Your task to perform on an android device: Open notification settings Image 0: 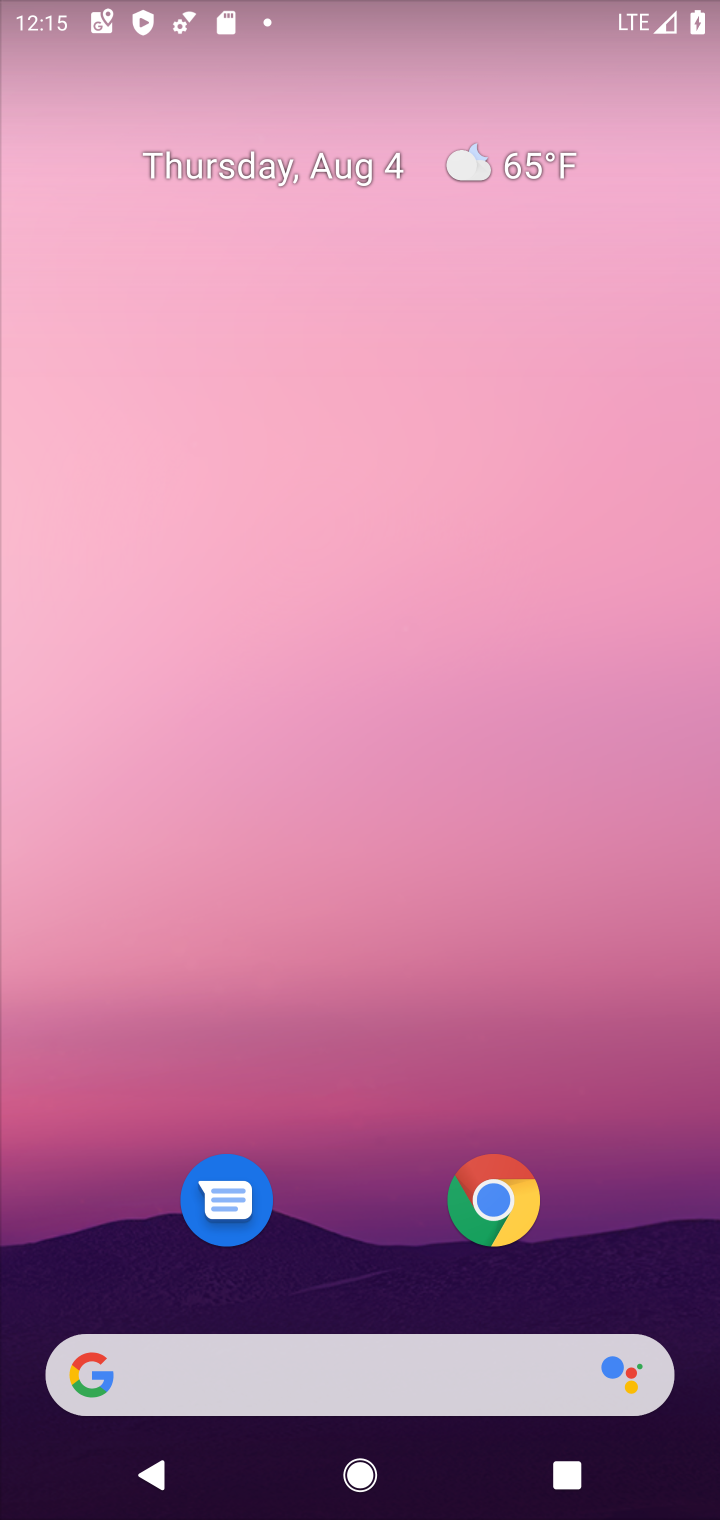
Step 0: drag from (354, 1278) to (414, 151)
Your task to perform on an android device: Open notification settings Image 1: 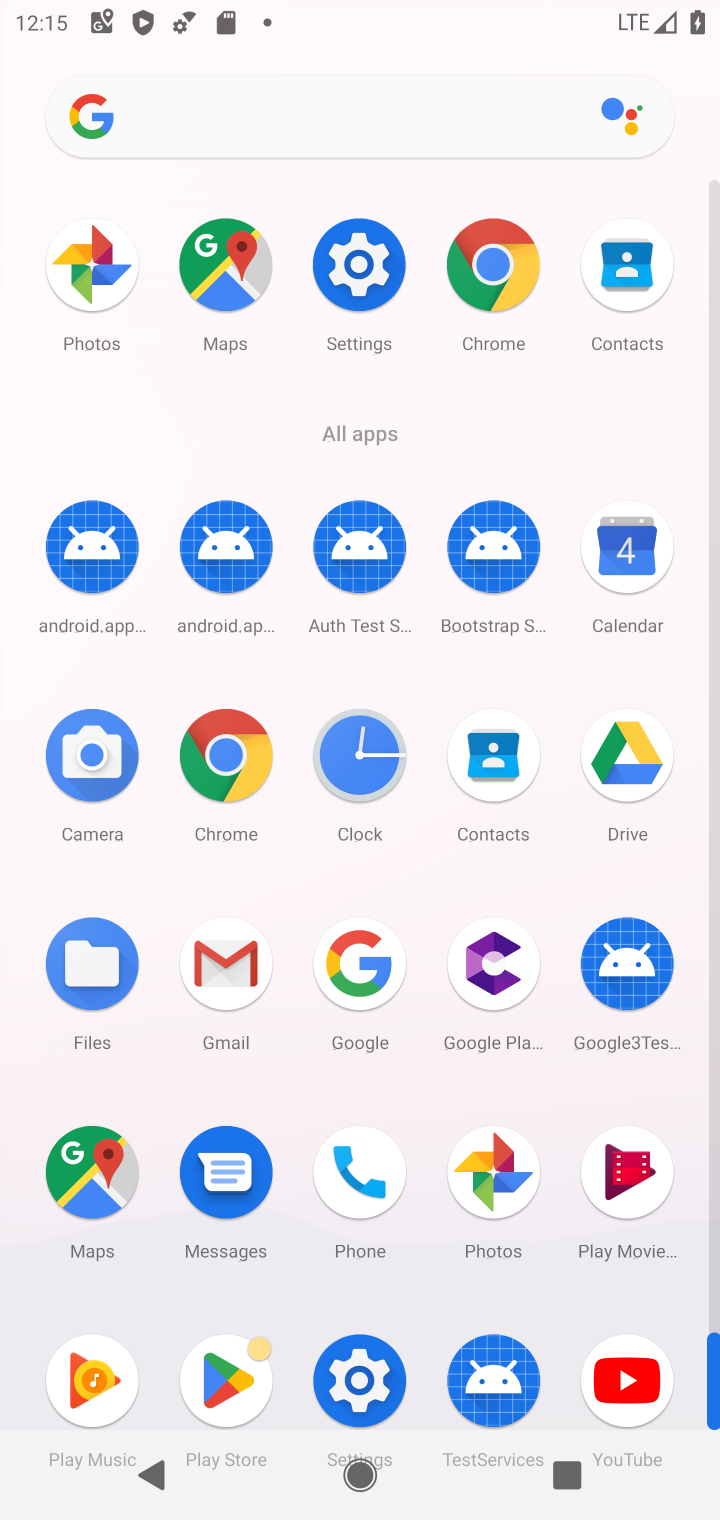
Step 1: click (341, 1386)
Your task to perform on an android device: Open notification settings Image 2: 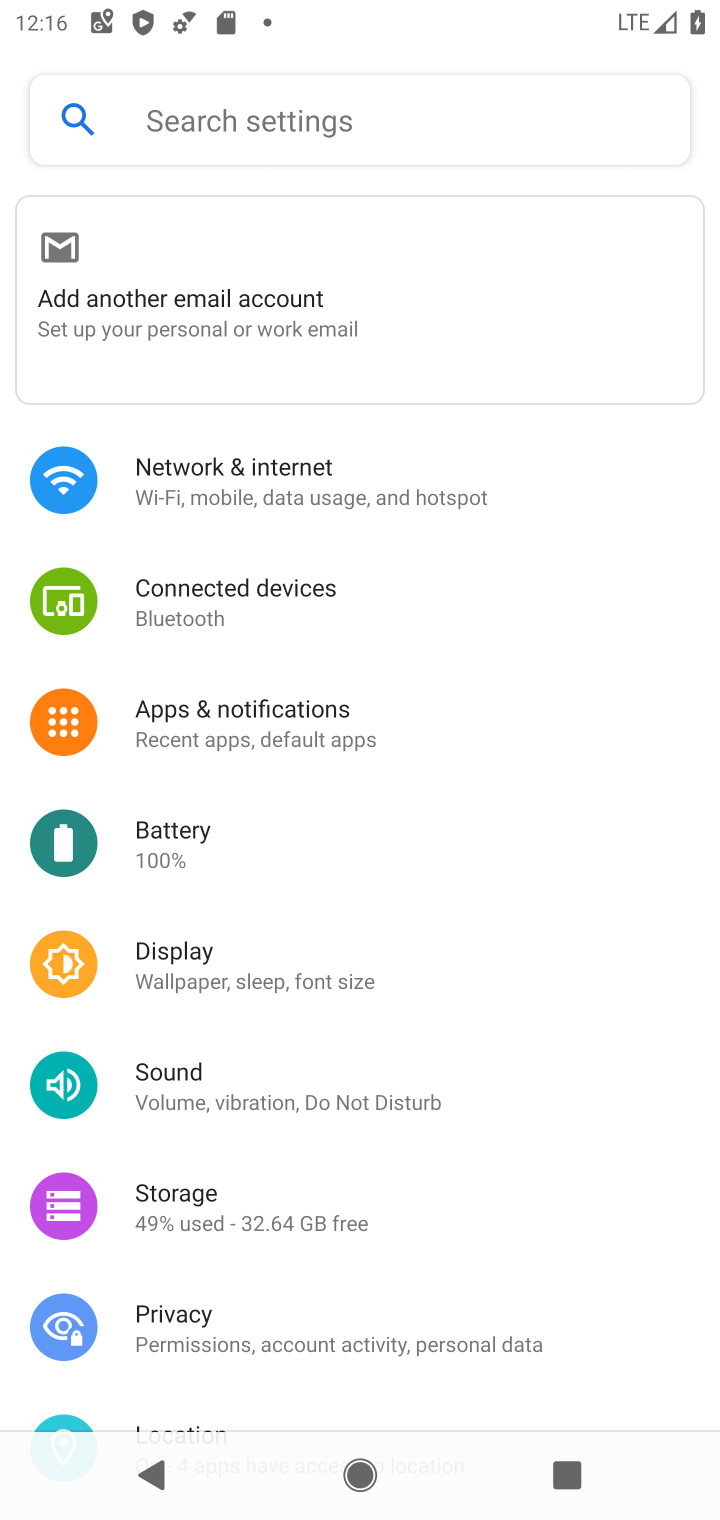
Step 2: click (406, 730)
Your task to perform on an android device: Open notification settings Image 3: 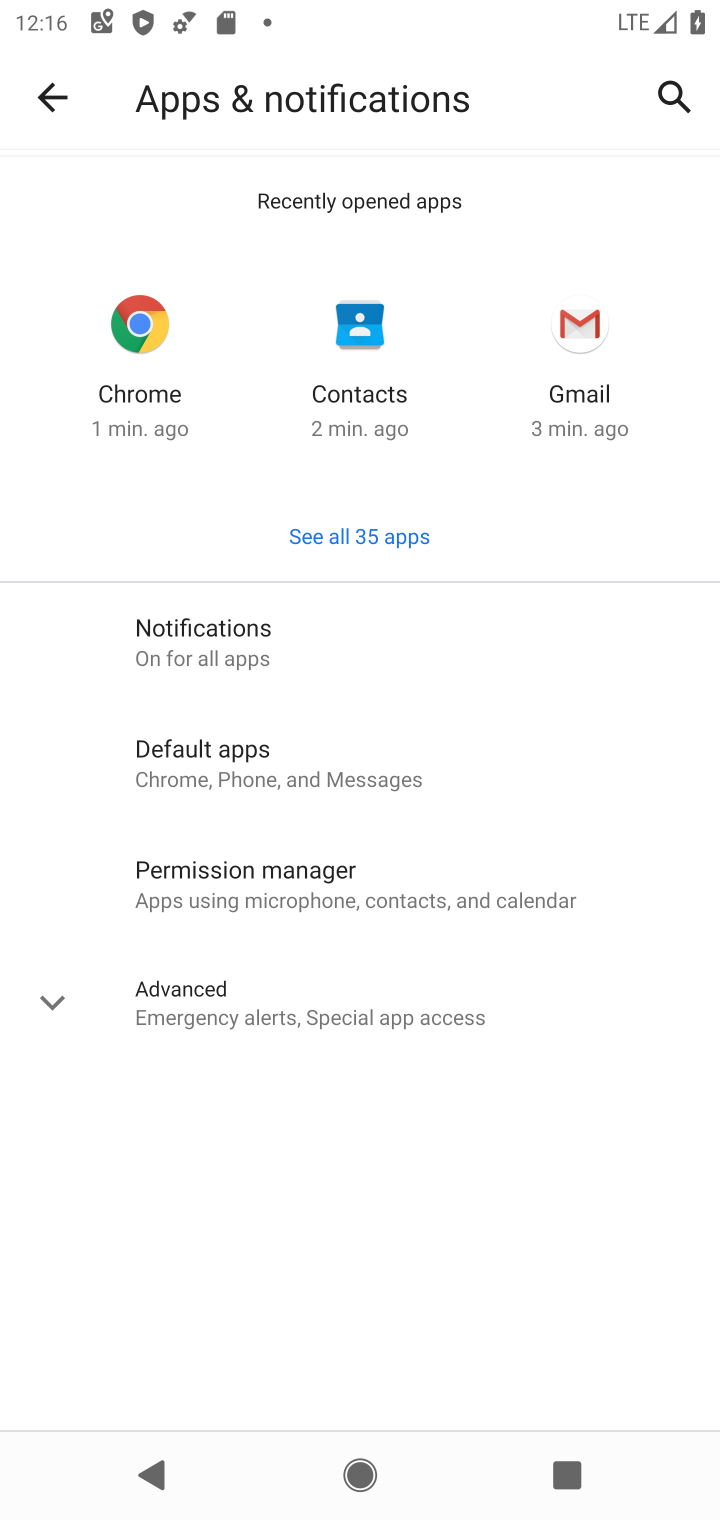
Step 3: click (167, 607)
Your task to perform on an android device: Open notification settings Image 4: 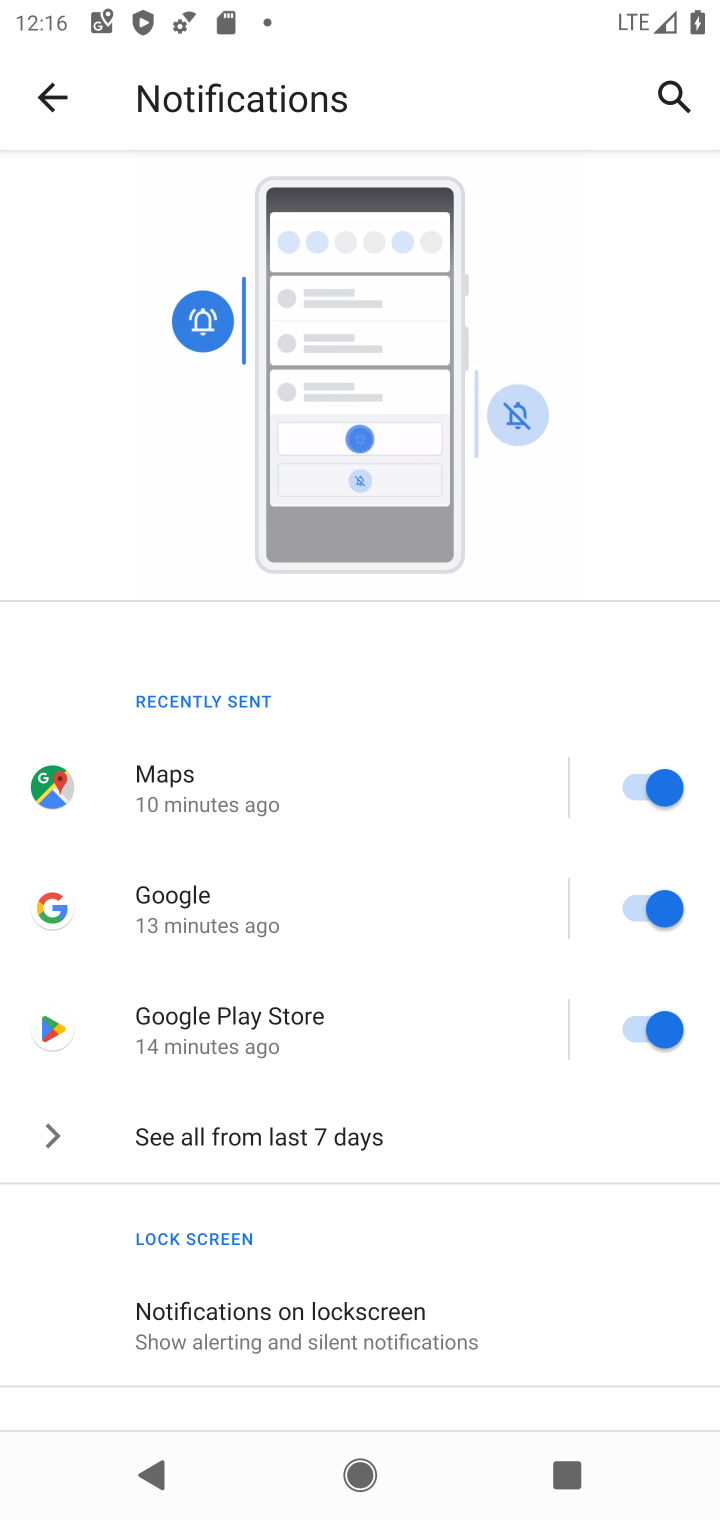
Step 4: task complete